Your task to perform on an android device: Go to Google Image 0: 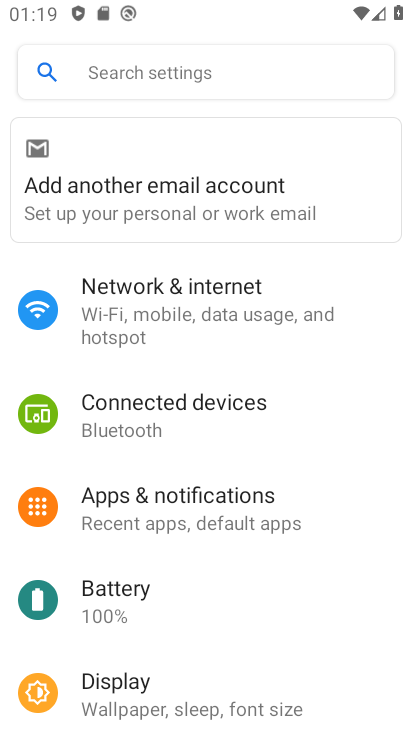
Step 0: press home button
Your task to perform on an android device: Go to Google Image 1: 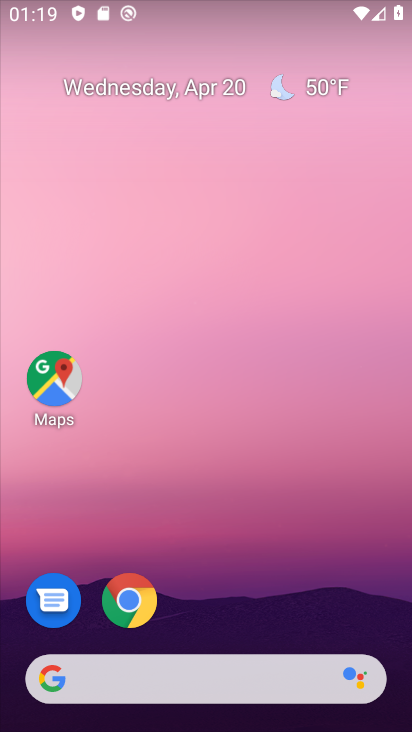
Step 1: drag from (232, 536) to (240, 21)
Your task to perform on an android device: Go to Google Image 2: 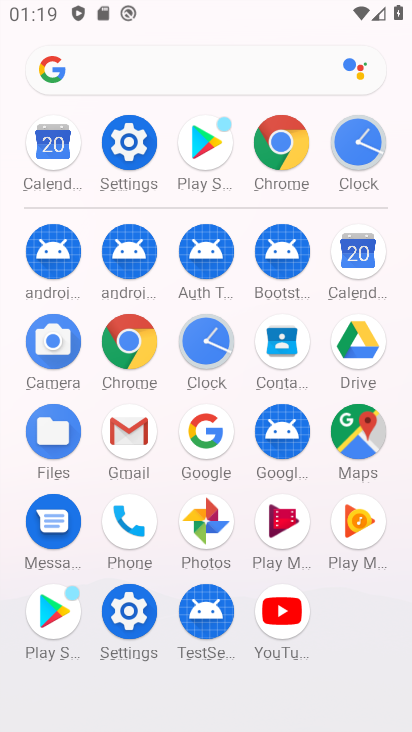
Step 2: click (216, 428)
Your task to perform on an android device: Go to Google Image 3: 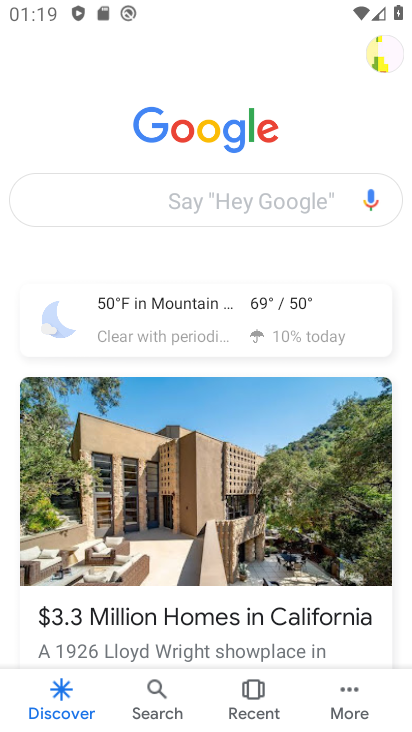
Step 3: task complete